Your task to perform on an android device: Go to Yahoo.com Image 0: 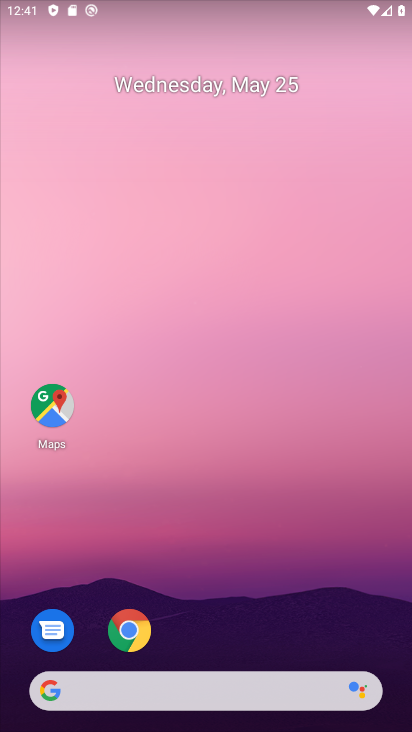
Step 0: drag from (370, 659) to (174, 62)
Your task to perform on an android device: Go to Yahoo.com Image 1: 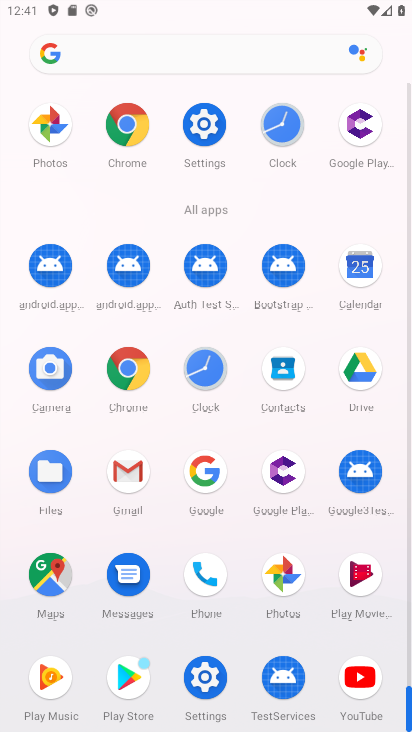
Step 1: click (116, 125)
Your task to perform on an android device: Go to Yahoo.com Image 2: 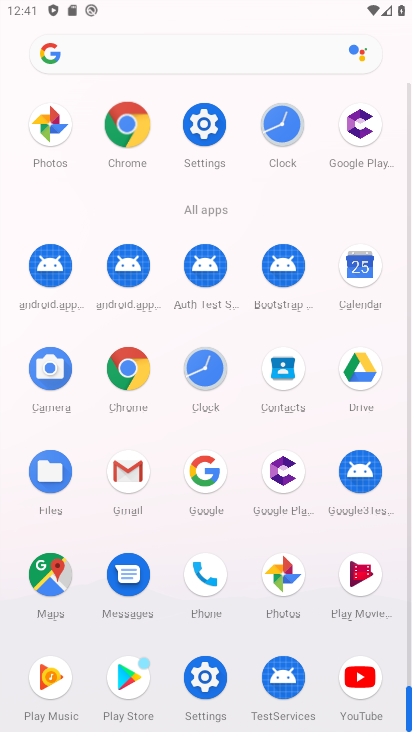
Step 2: click (119, 122)
Your task to perform on an android device: Go to Yahoo.com Image 3: 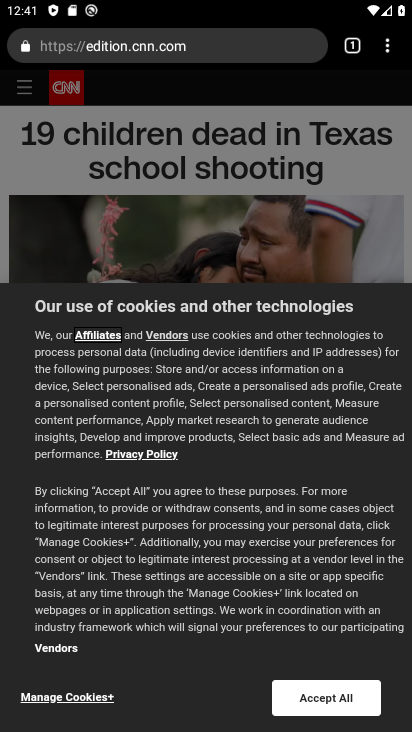
Step 3: drag from (386, 47) to (215, 148)
Your task to perform on an android device: Go to Yahoo.com Image 4: 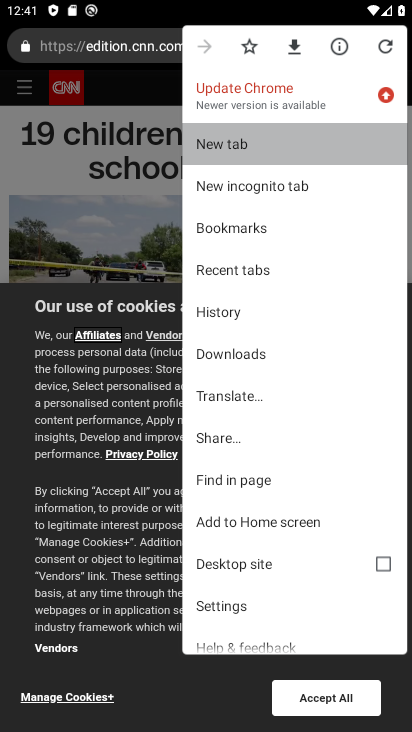
Step 4: click (216, 148)
Your task to perform on an android device: Go to Yahoo.com Image 5: 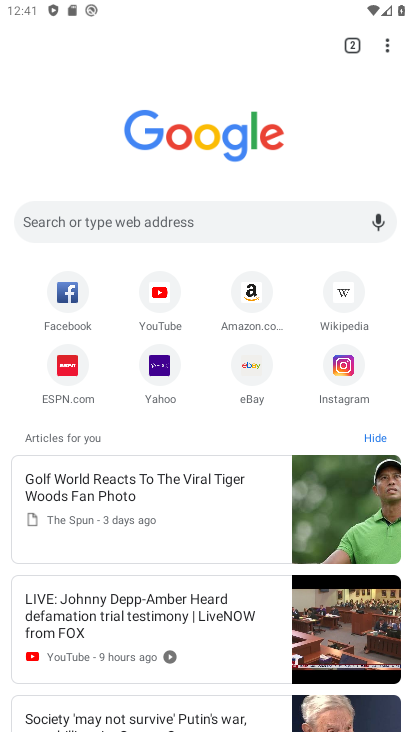
Step 5: click (168, 364)
Your task to perform on an android device: Go to Yahoo.com Image 6: 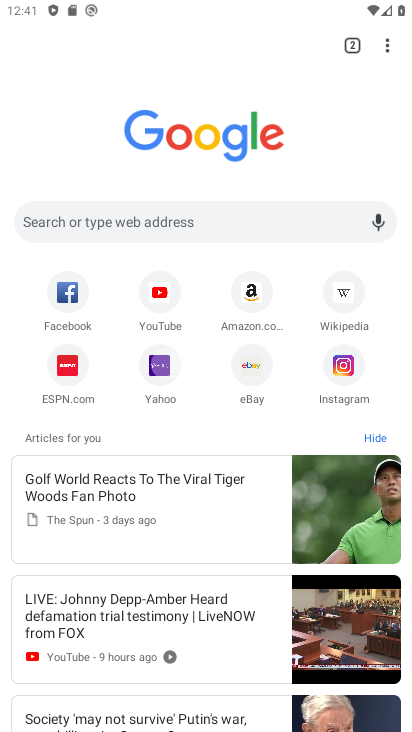
Step 6: click (168, 364)
Your task to perform on an android device: Go to Yahoo.com Image 7: 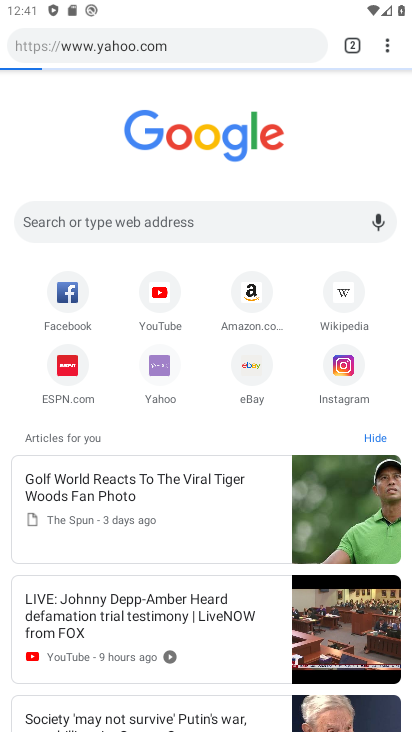
Step 7: click (166, 364)
Your task to perform on an android device: Go to Yahoo.com Image 8: 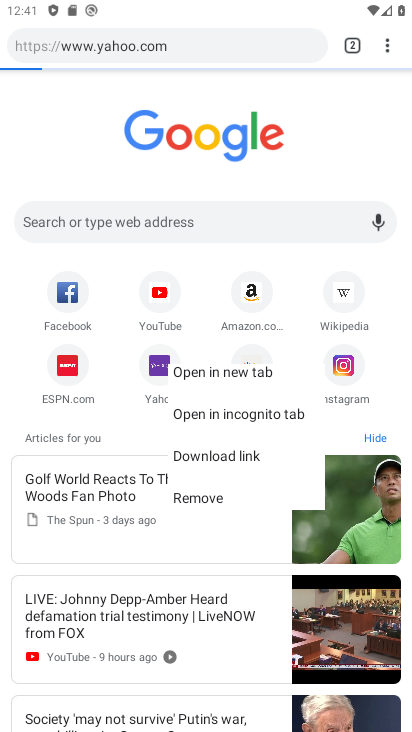
Step 8: click (166, 364)
Your task to perform on an android device: Go to Yahoo.com Image 9: 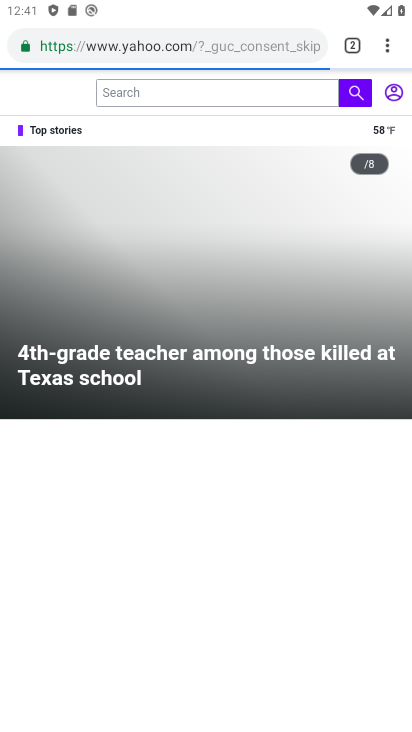
Step 9: task complete